Your task to perform on an android device: Go to accessibility settings Image 0: 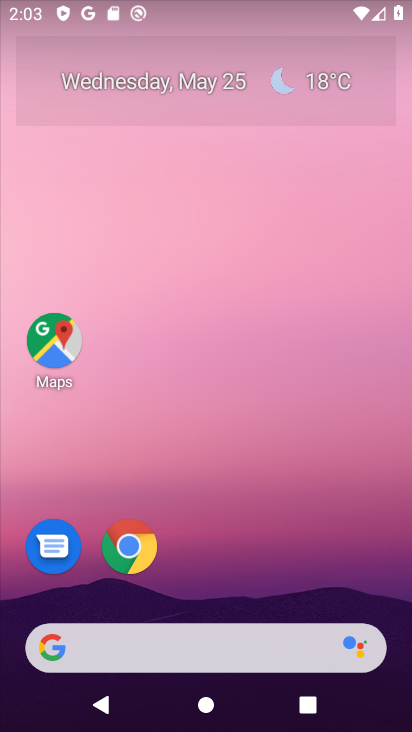
Step 0: drag from (217, 581) to (185, 8)
Your task to perform on an android device: Go to accessibility settings Image 1: 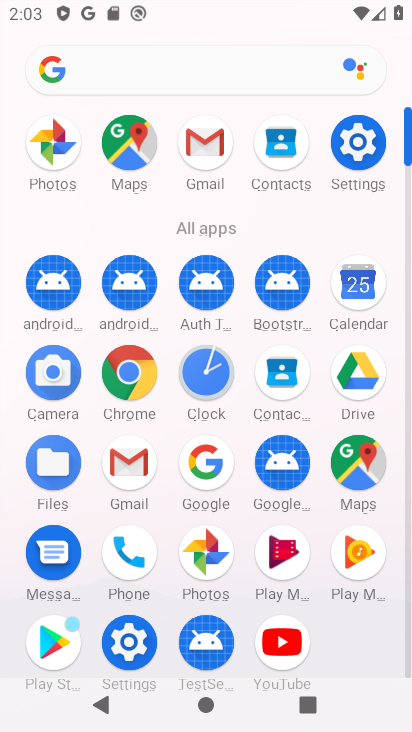
Step 1: click (134, 641)
Your task to perform on an android device: Go to accessibility settings Image 2: 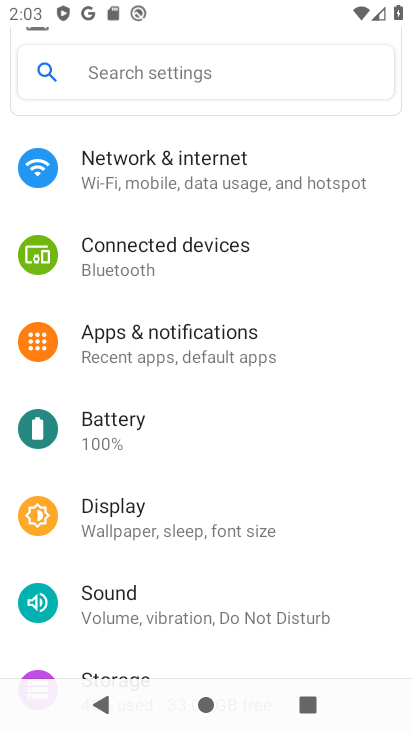
Step 2: drag from (194, 614) to (235, 243)
Your task to perform on an android device: Go to accessibility settings Image 3: 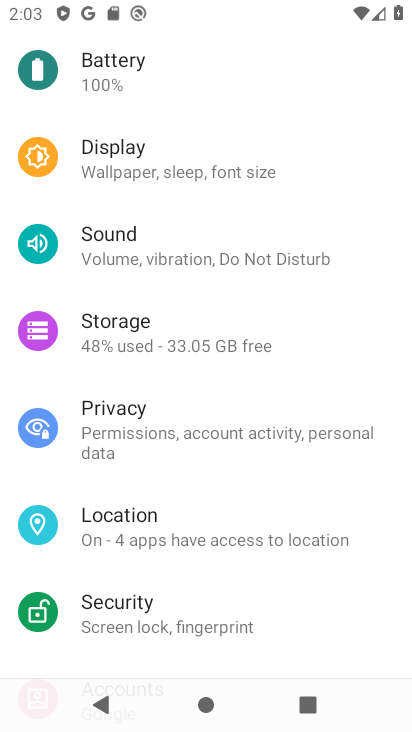
Step 3: drag from (198, 521) to (215, 80)
Your task to perform on an android device: Go to accessibility settings Image 4: 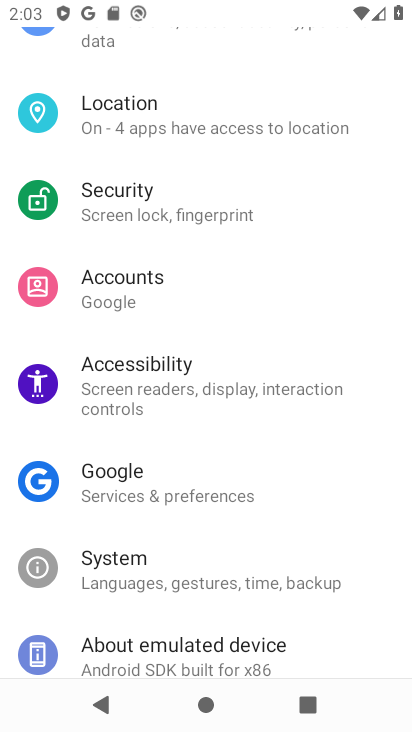
Step 4: click (164, 418)
Your task to perform on an android device: Go to accessibility settings Image 5: 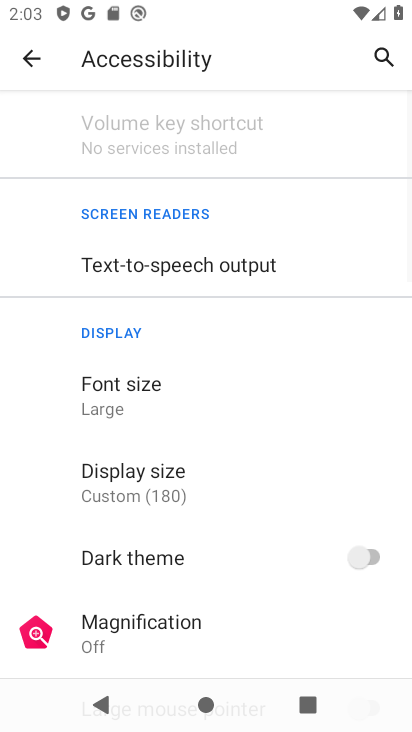
Step 5: task complete